Your task to perform on an android device: Open the map Image 0: 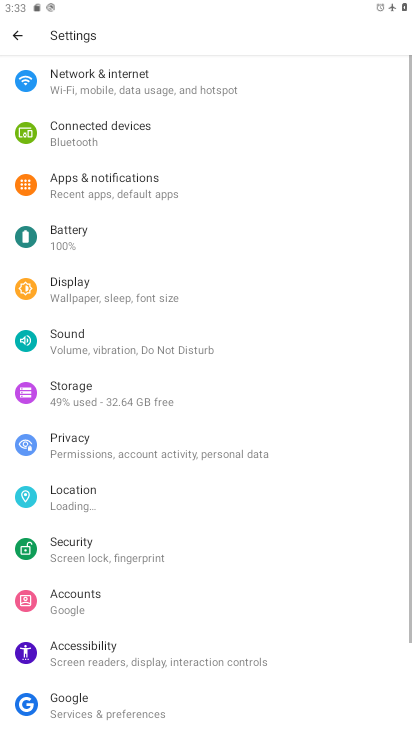
Step 0: press home button
Your task to perform on an android device: Open the map Image 1: 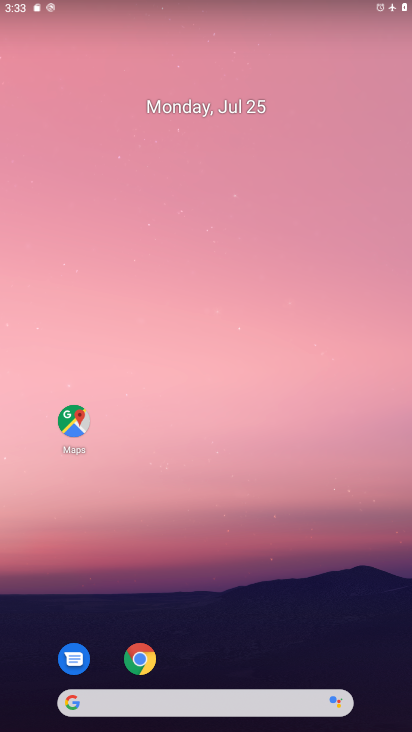
Step 1: click (73, 423)
Your task to perform on an android device: Open the map Image 2: 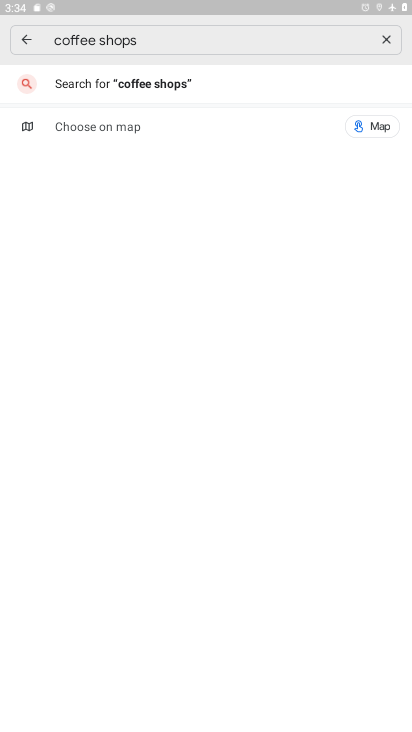
Step 2: task complete